Your task to perform on an android device: turn on priority inbox in the gmail app Image 0: 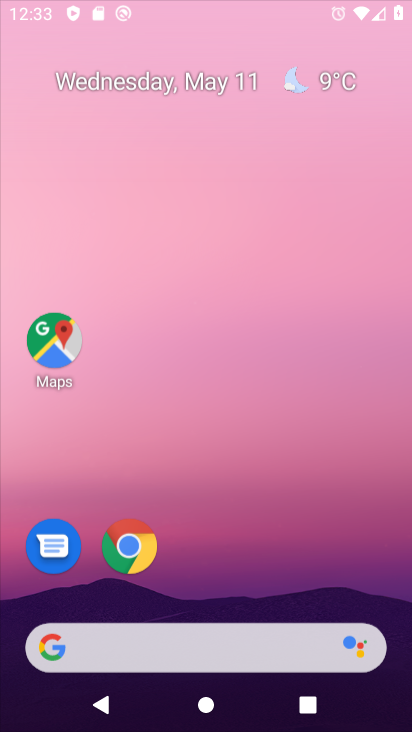
Step 0: drag from (167, 603) to (386, 1)
Your task to perform on an android device: turn on priority inbox in the gmail app Image 1: 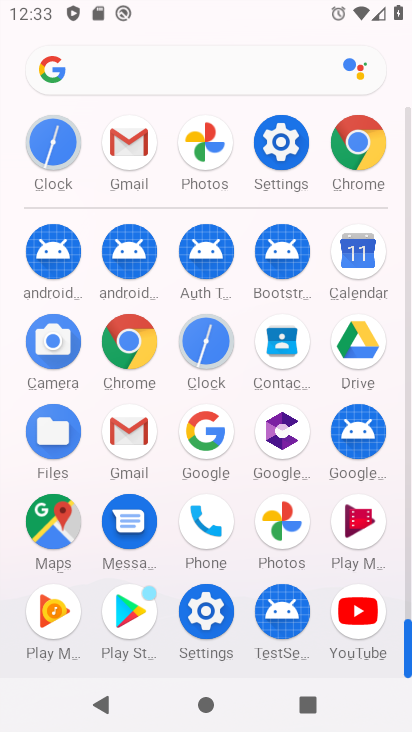
Step 1: click (140, 440)
Your task to perform on an android device: turn on priority inbox in the gmail app Image 2: 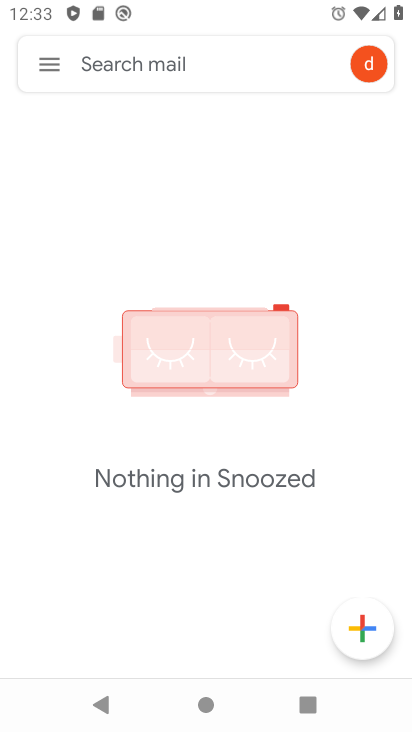
Step 2: drag from (213, 551) to (206, 341)
Your task to perform on an android device: turn on priority inbox in the gmail app Image 3: 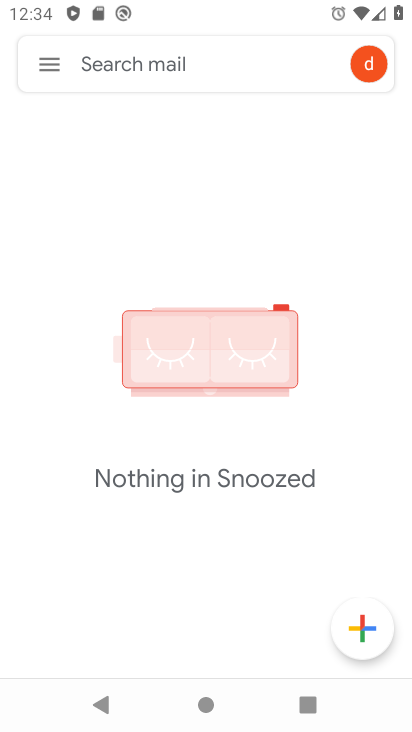
Step 3: drag from (222, 516) to (290, 291)
Your task to perform on an android device: turn on priority inbox in the gmail app Image 4: 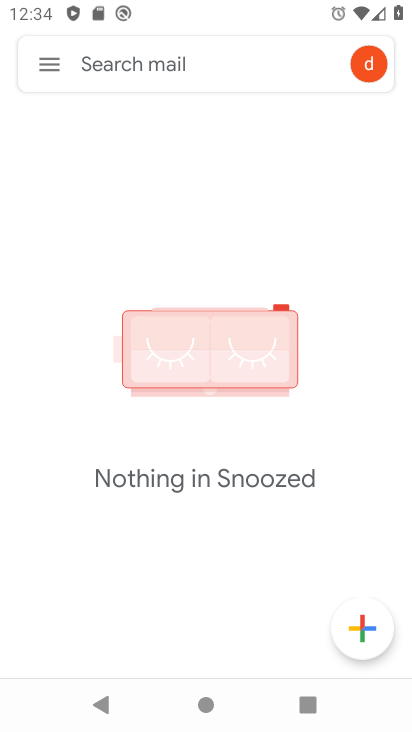
Step 4: click (43, 63)
Your task to perform on an android device: turn on priority inbox in the gmail app Image 5: 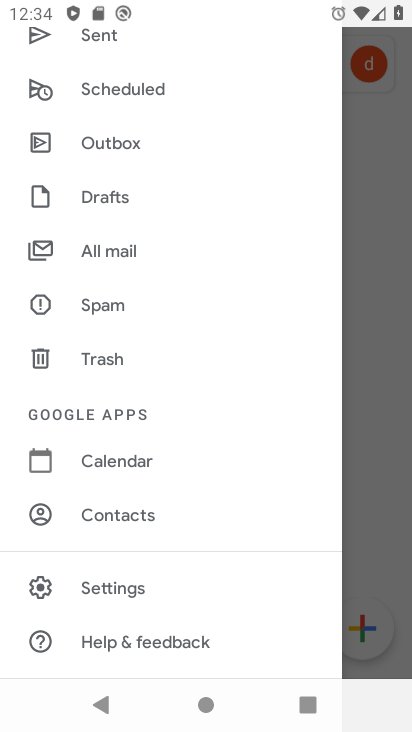
Step 5: click (132, 586)
Your task to perform on an android device: turn on priority inbox in the gmail app Image 6: 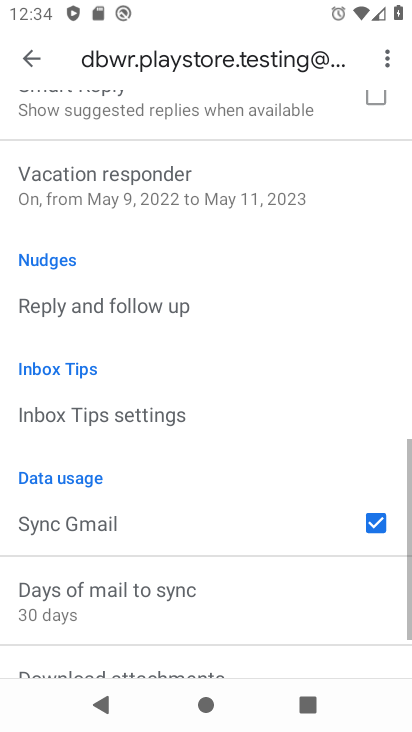
Step 6: drag from (157, 540) to (227, 170)
Your task to perform on an android device: turn on priority inbox in the gmail app Image 7: 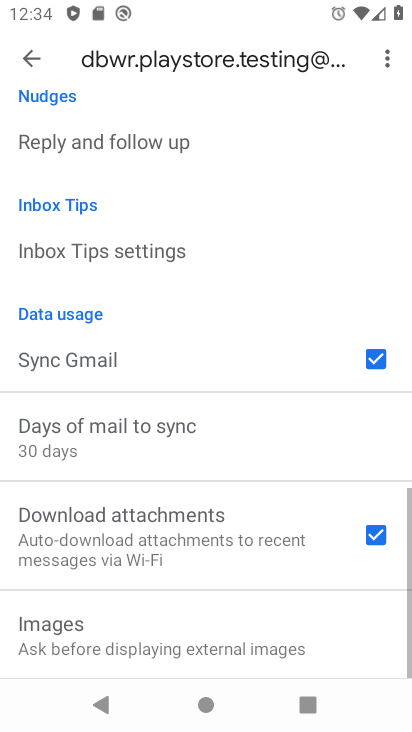
Step 7: drag from (217, 289) to (338, 723)
Your task to perform on an android device: turn on priority inbox in the gmail app Image 8: 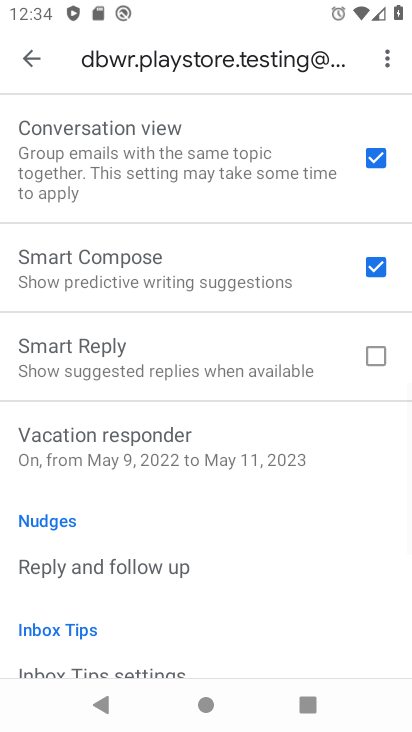
Step 8: drag from (187, 294) to (281, 727)
Your task to perform on an android device: turn on priority inbox in the gmail app Image 9: 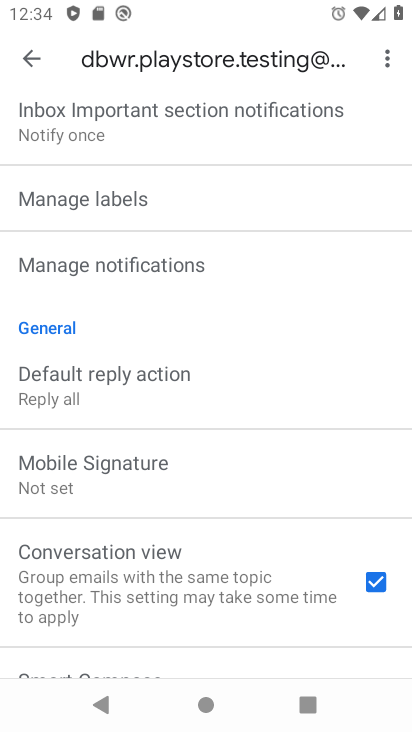
Step 9: drag from (140, 312) to (178, 677)
Your task to perform on an android device: turn on priority inbox in the gmail app Image 10: 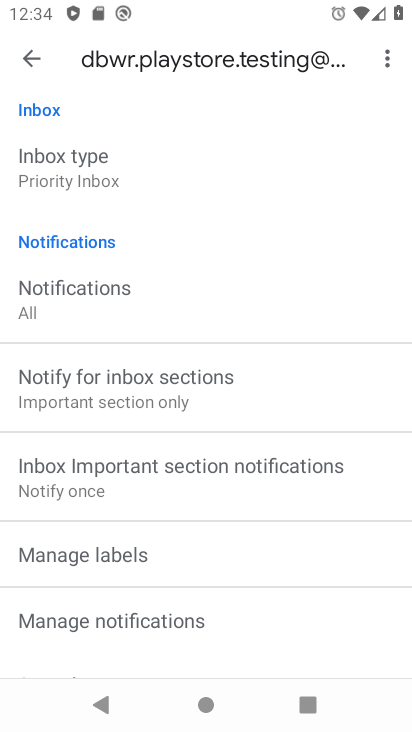
Step 10: click (113, 162)
Your task to perform on an android device: turn on priority inbox in the gmail app Image 11: 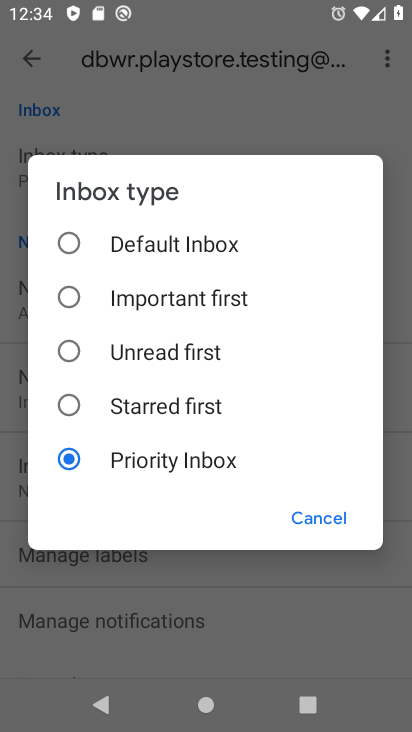
Step 11: click (165, 453)
Your task to perform on an android device: turn on priority inbox in the gmail app Image 12: 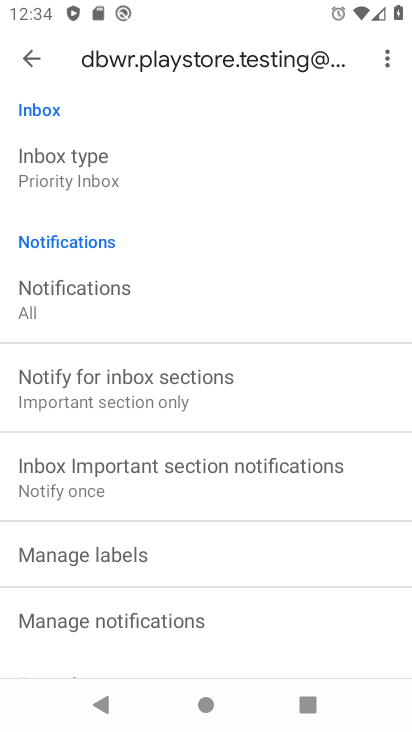
Step 12: task complete